Your task to perform on an android device: Set the phone to "Do not disturb". Image 0: 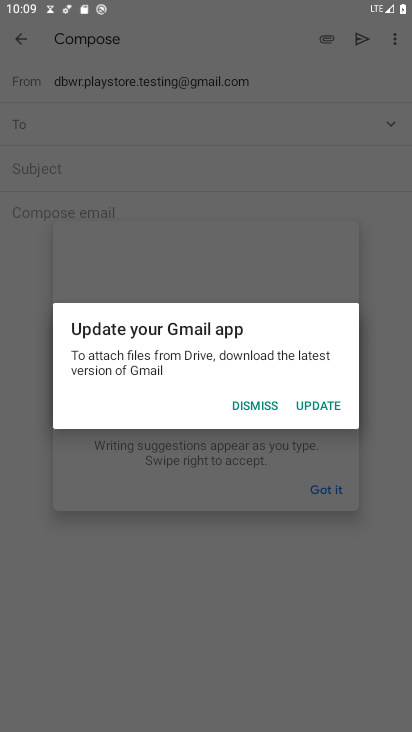
Step 0: press home button
Your task to perform on an android device: Set the phone to "Do not disturb". Image 1: 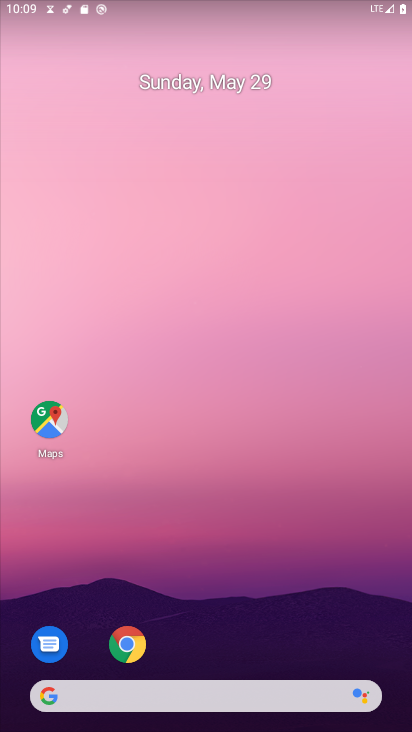
Step 1: drag from (148, 12) to (117, 731)
Your task to perform on an android device: Set the phone to "Do not disturb". Image 2: 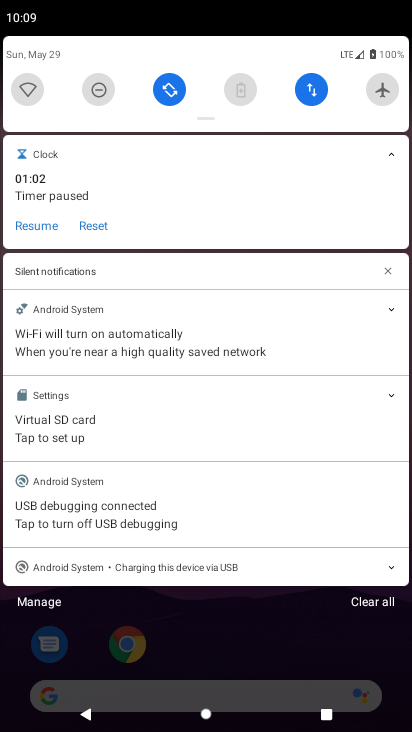
Step 2: drag from (202, 116) to (84, 730)
Your task to perform on an android device: Set the phone to "Do not disturb". Image 3: 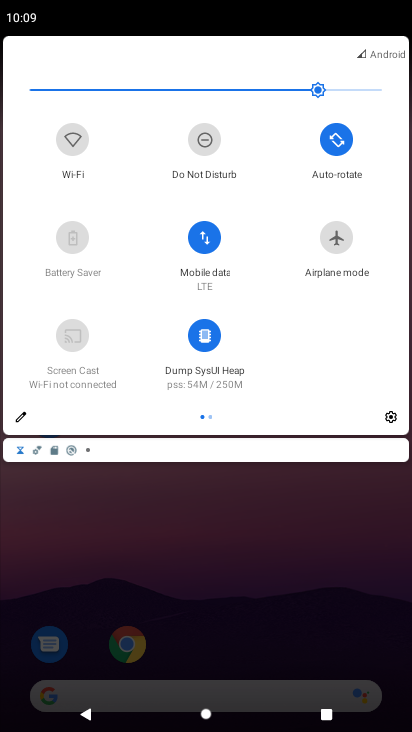
Step 3: click (201, 150)
Your task to perform on an android device: Set the phone to "Do not disturb". Image 4: 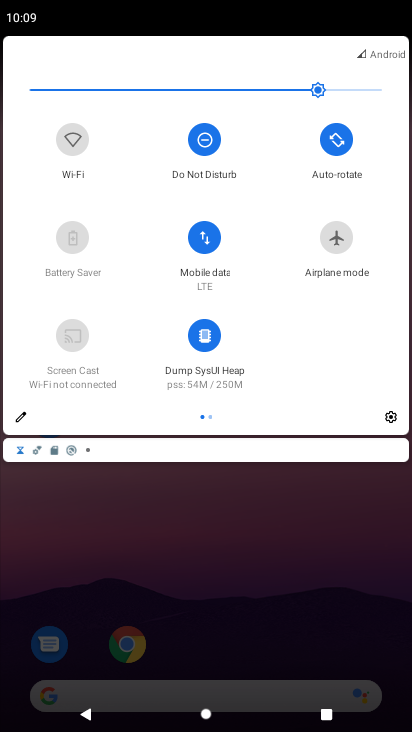
Step 4: task complete